Your task to perform on an android device: toggle priority inbox in the gmail app Image 0: 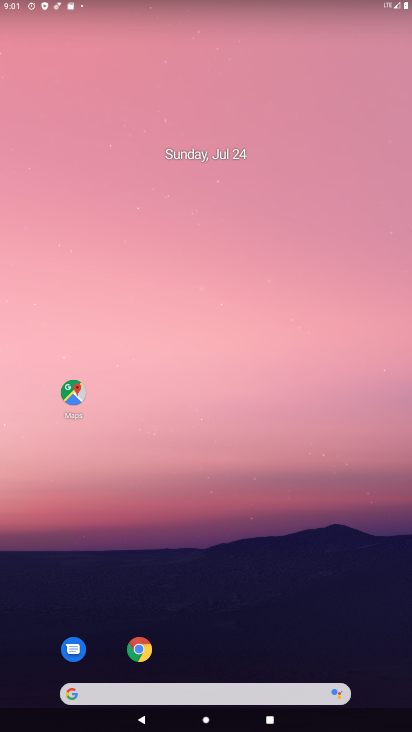
Step 0: drag from (88, 552) to (255, 12)
Your task to perform on an android device: toggle priority inbox in the gmail app Image 1: 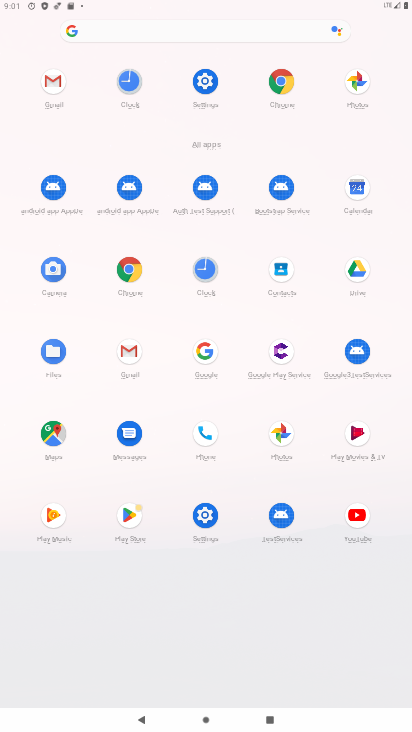
Step 1: click (119, 349)
Your task to perform on an android device: toggle priority inbox in the gmail app Image 2: 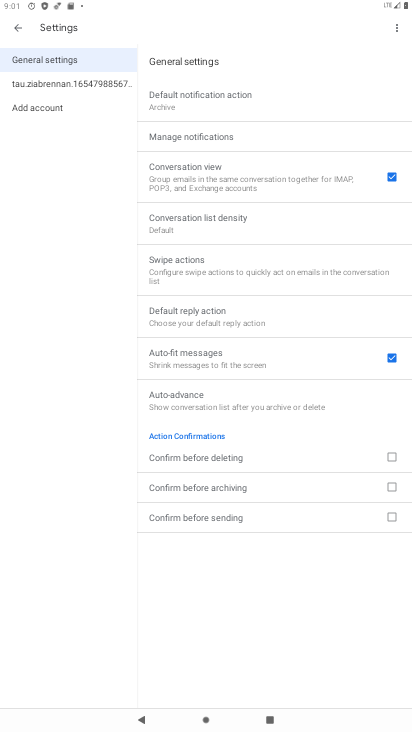
Step 2: click (90, 85)
Your task to perform on an android device: toggle priority inbox in the gmail app Image 3: 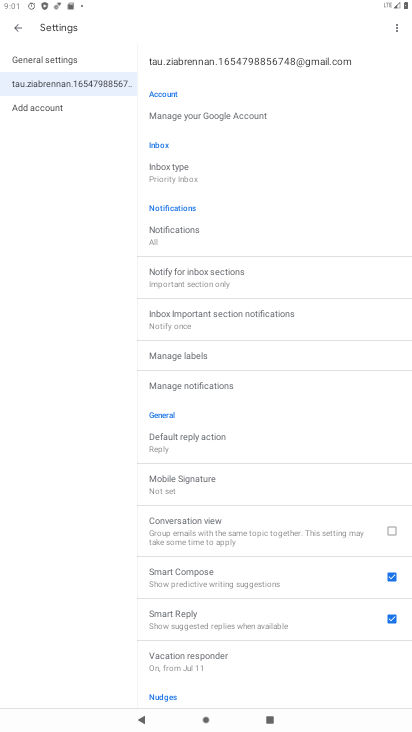
Step 3: task complete